Your task to perform on an android device: Open settings Image 0: 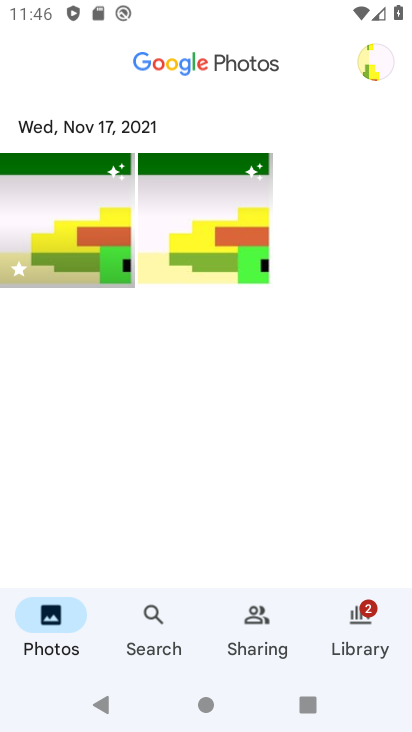
Step 0: press home button
Your task to perform on an android device: Open settings Image 1: 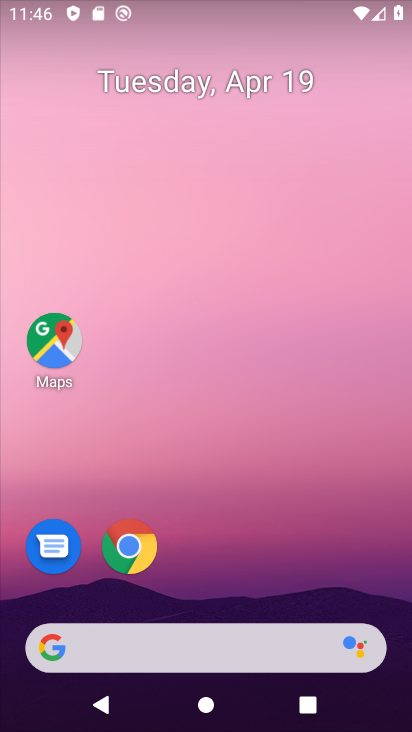
Step 1: drag from (248, 609) to (281, 0)
Your task to perform on an android device: Open settings Image 2: 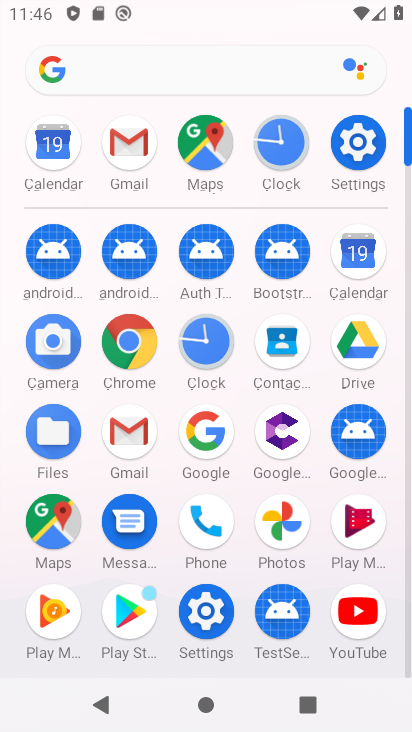
Step 2: click (355, 148)
Your task to perform on an android device: Open settings Image 3: 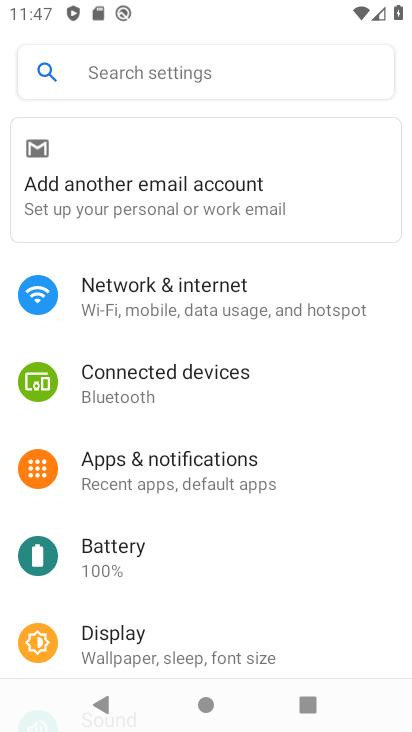
Step 3: task complete